Your task to perform on an android device: What's on my calendar tomorrow? Image 0: 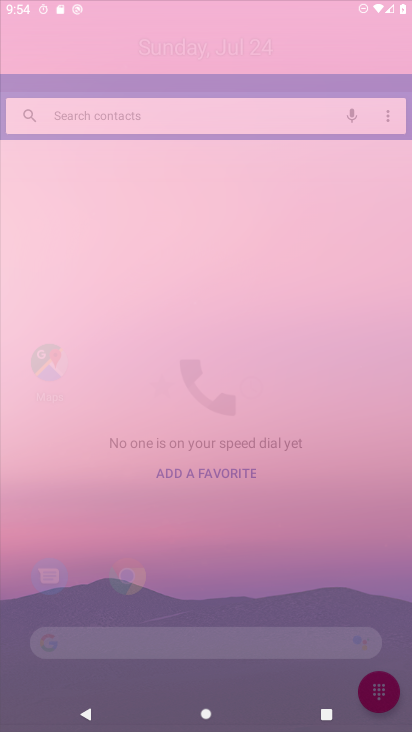
Step 0: click (368, 434)
Your task to perform on an android device: What's on my calendar tomorrow? Image 1: 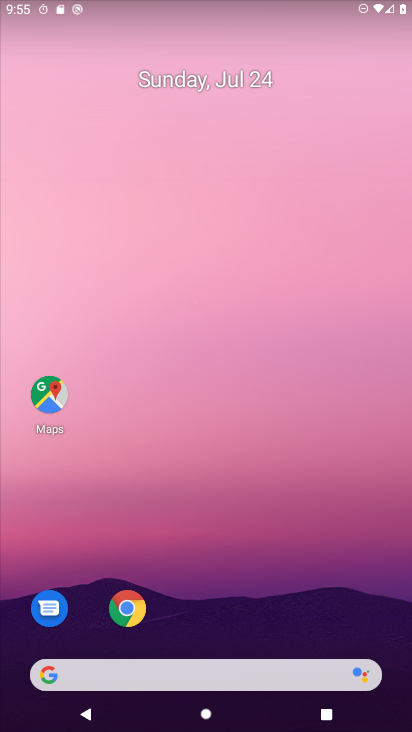
Step 1: drag from (211, 641) to (380, 139)
Your task to perform on an android device: What's on my calendar tomorrow? Image 2: 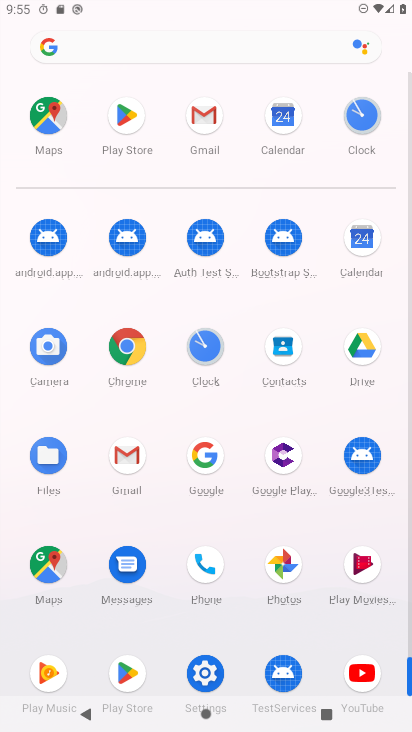
Step 2: click (359, 234)
Your task to perform on an android device: What's on my calendar tomorrow? Image 3: 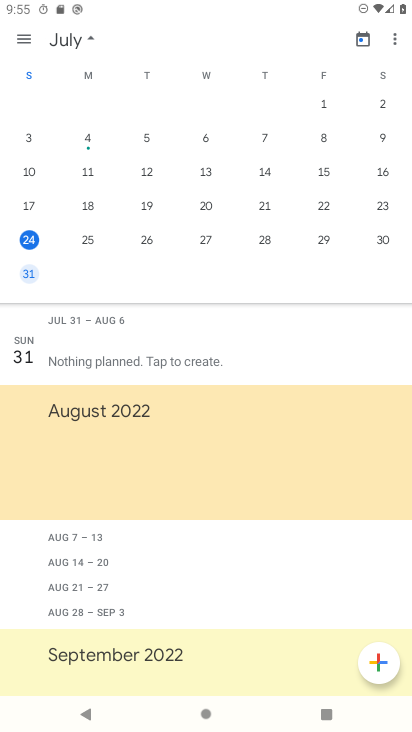
Step 3: click (86, 235)
Your task to perform on an android device: What's on my calendar tomorrow? Image 4: 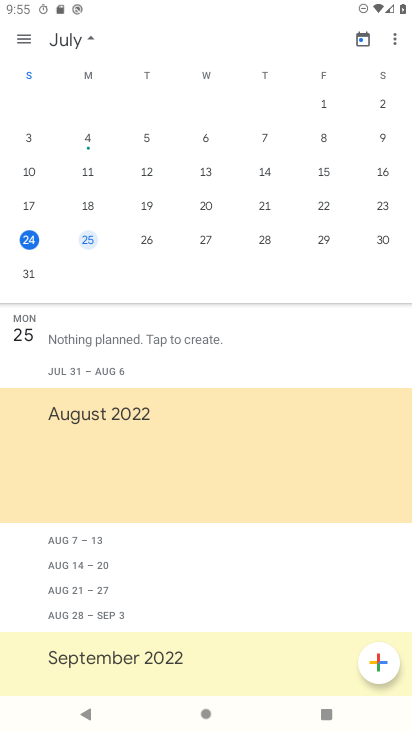
Step 4: task complete